Your task to perform on an android device: Clear the cart on ebay. Add bose soundlink to the cart on ebay, then select checkout. Image 0: 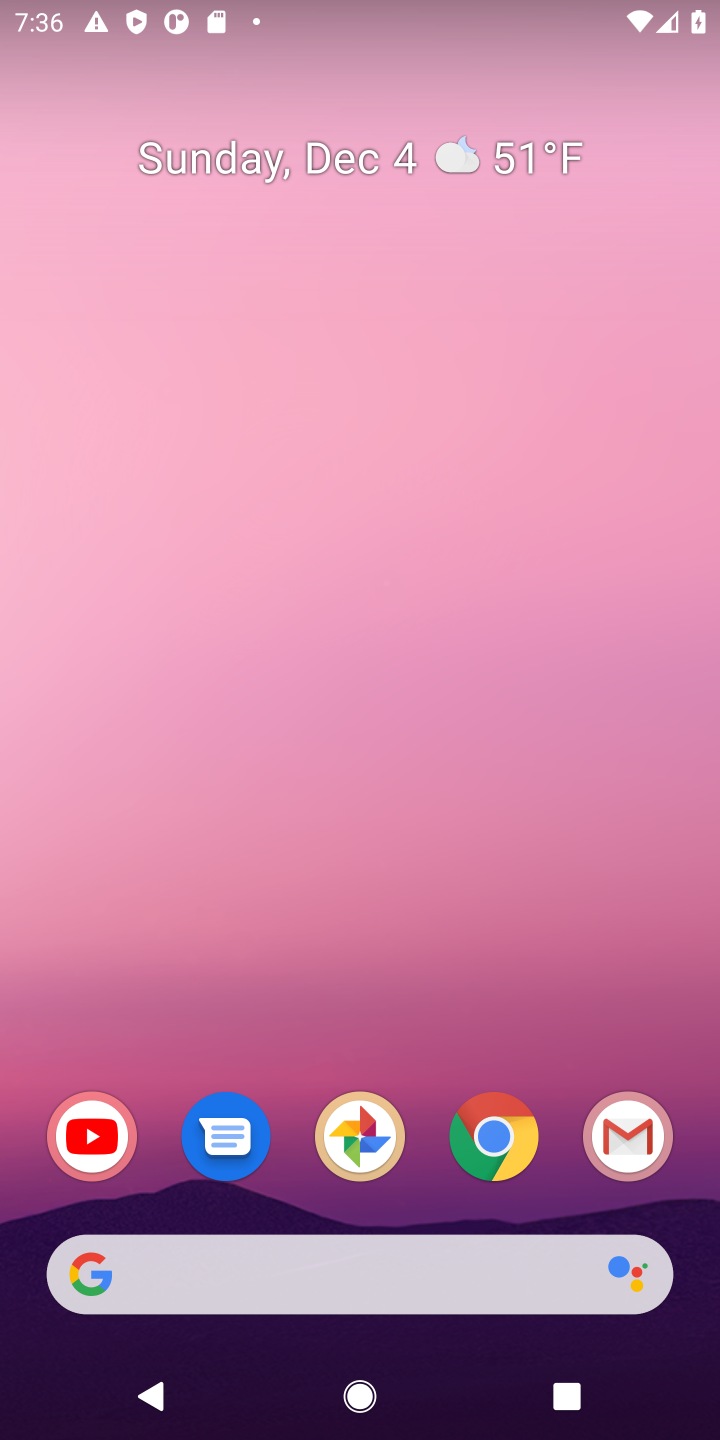
Step 0: click (512, 1143)
Your task to perform on an android device: Clear the cart on ebay. Add bose soundlink to the cart on ebay, then select checkout. Image 1: 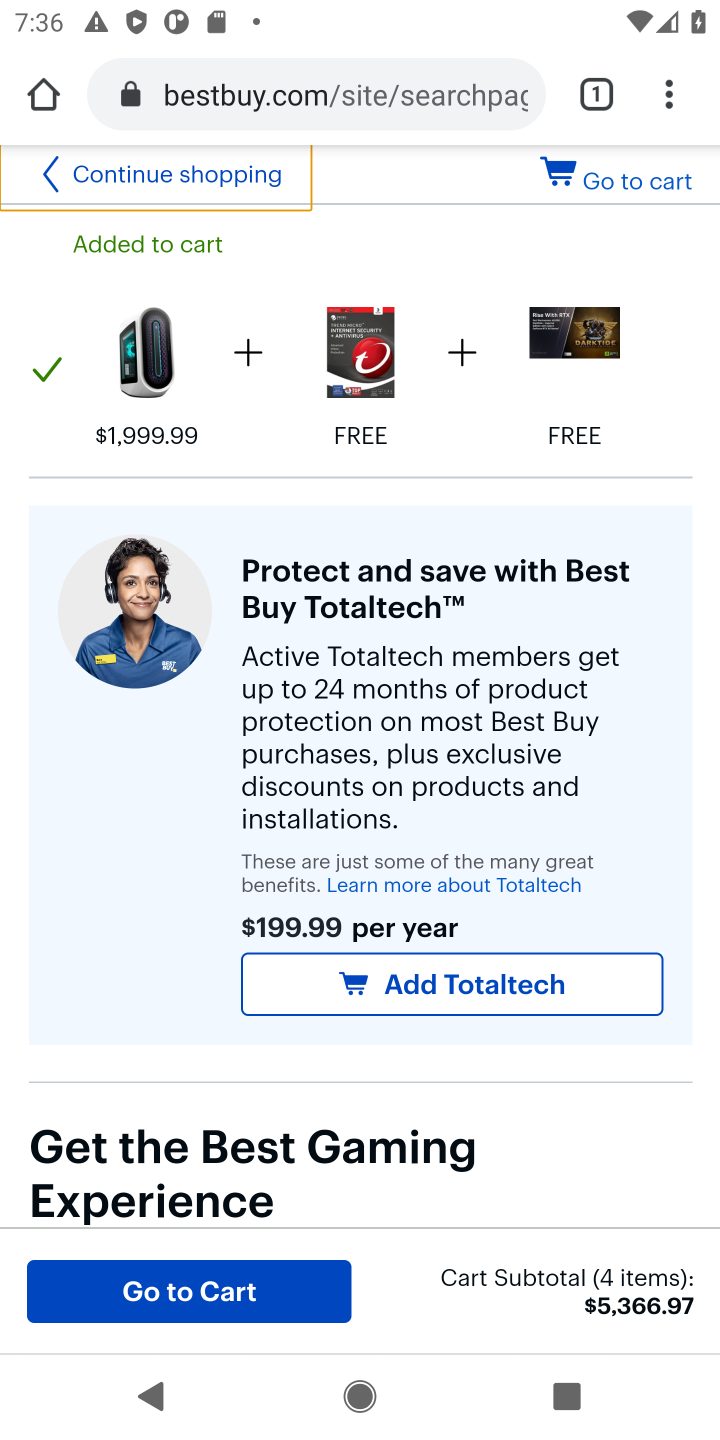
Step 1: click (271, 101)
Your task to perform on an android device: Clear the cart on ebay. Add bose soundlink to the cart on ebay, then select checkout. Image 2: 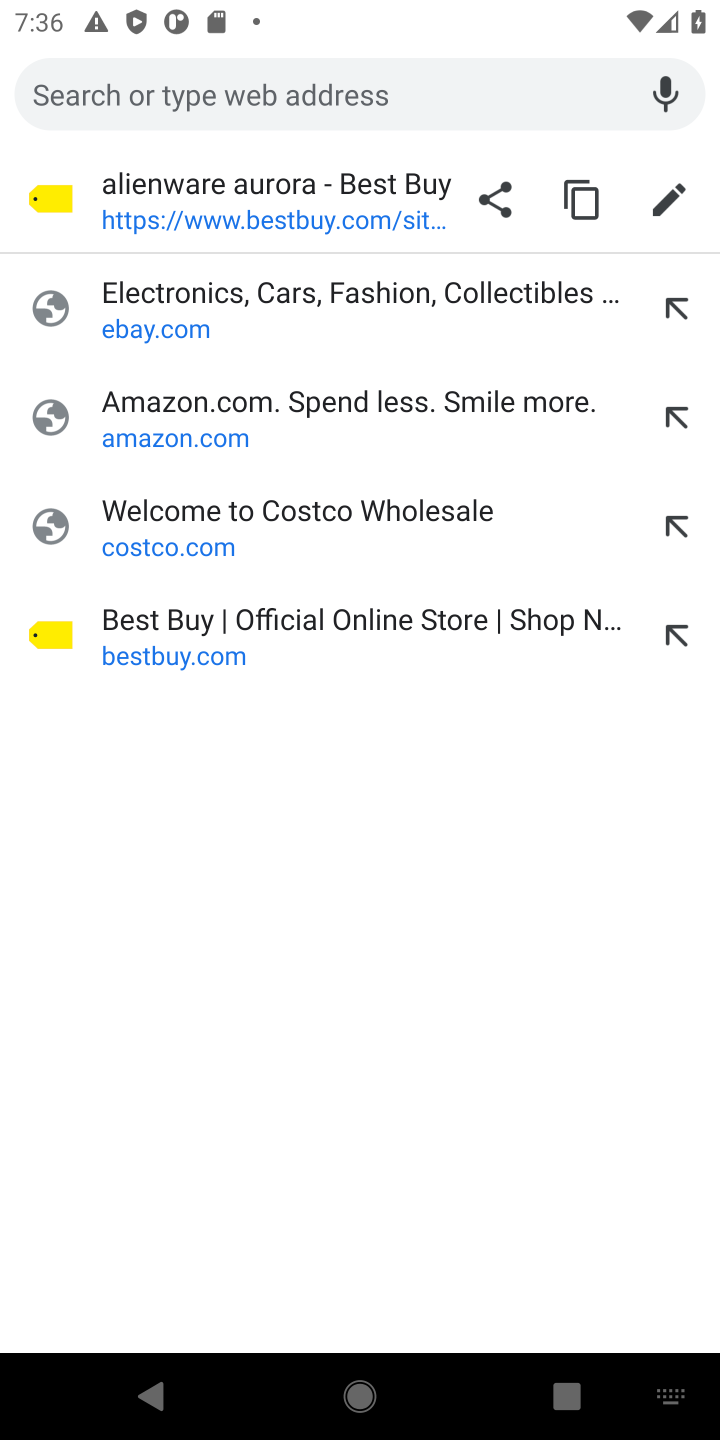
Step 2: click (124, 312)
Your task to perform on an android device: Clear the cart on ebay. Add bose soundlink to the cart on ebay, then select checkout. Image 3: 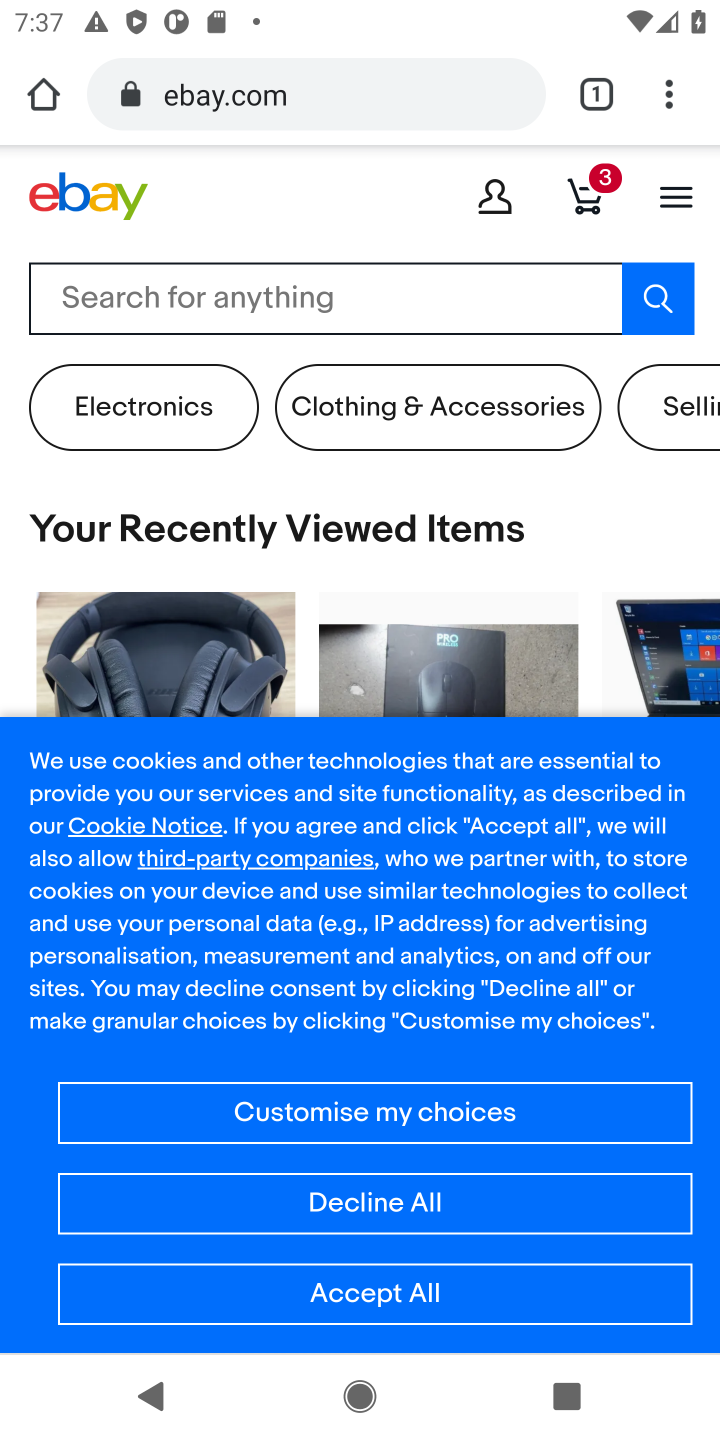
Step 3: click (585, 197)
Your task to perform on an android device: Clear the cart on ebay. Add bose soundlink to the cart on ebay, then select checkout. Image 4: 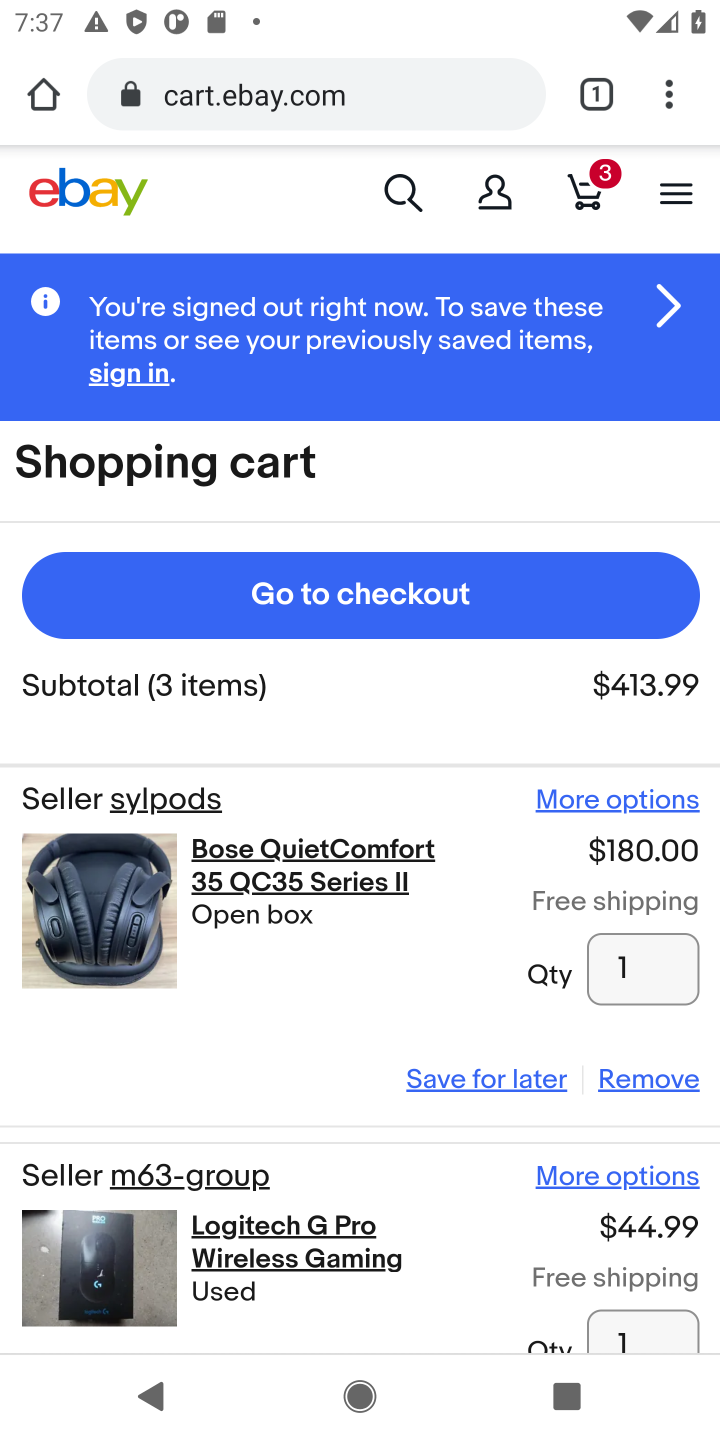
Step 4: click (625, 1085)
Your task to perform on an android device: Clear the cart on ebay. Add bose soundlink to the cart on ebay, then select checkout. Image 5: 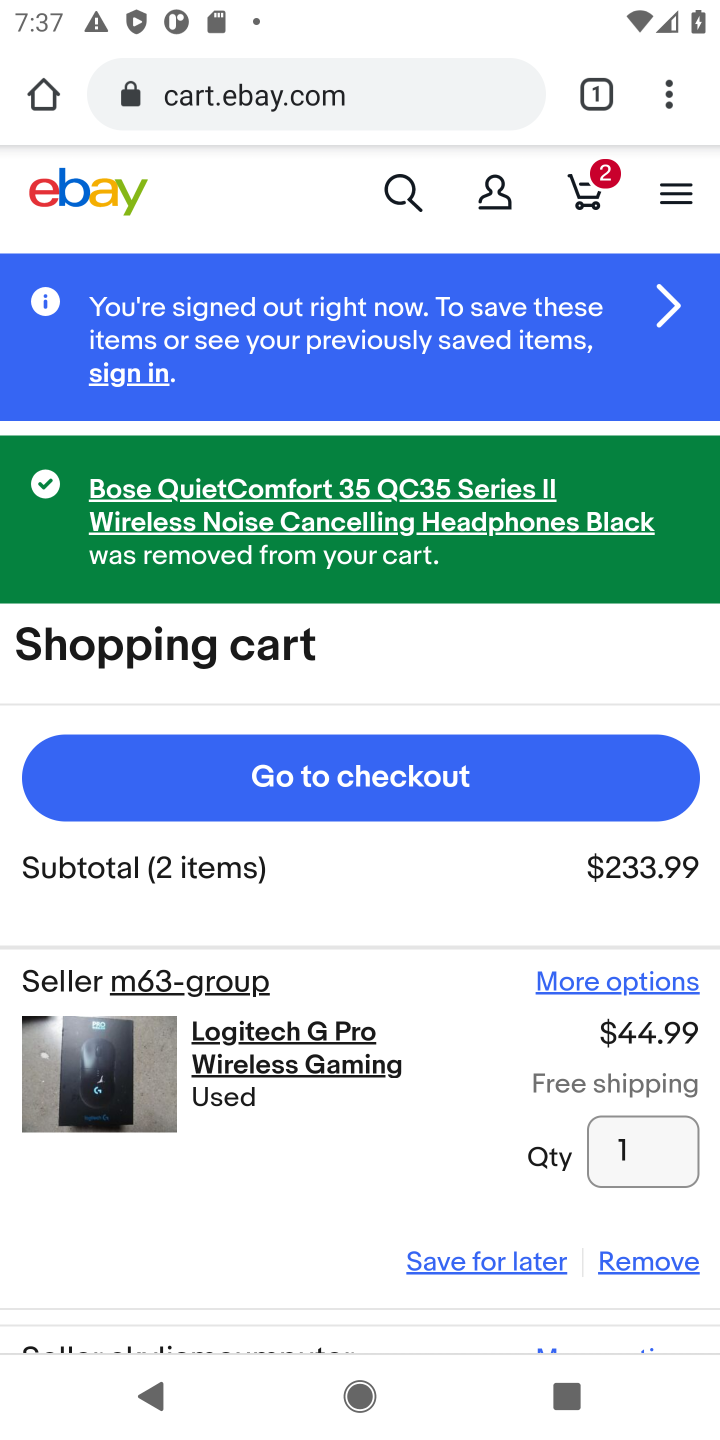
Step 5: click (624, 1253)
Your task to perform on an android device: Clear the cart on ebay. Add bose soundlink to the cart on ebay, then select checkout. Image 6: 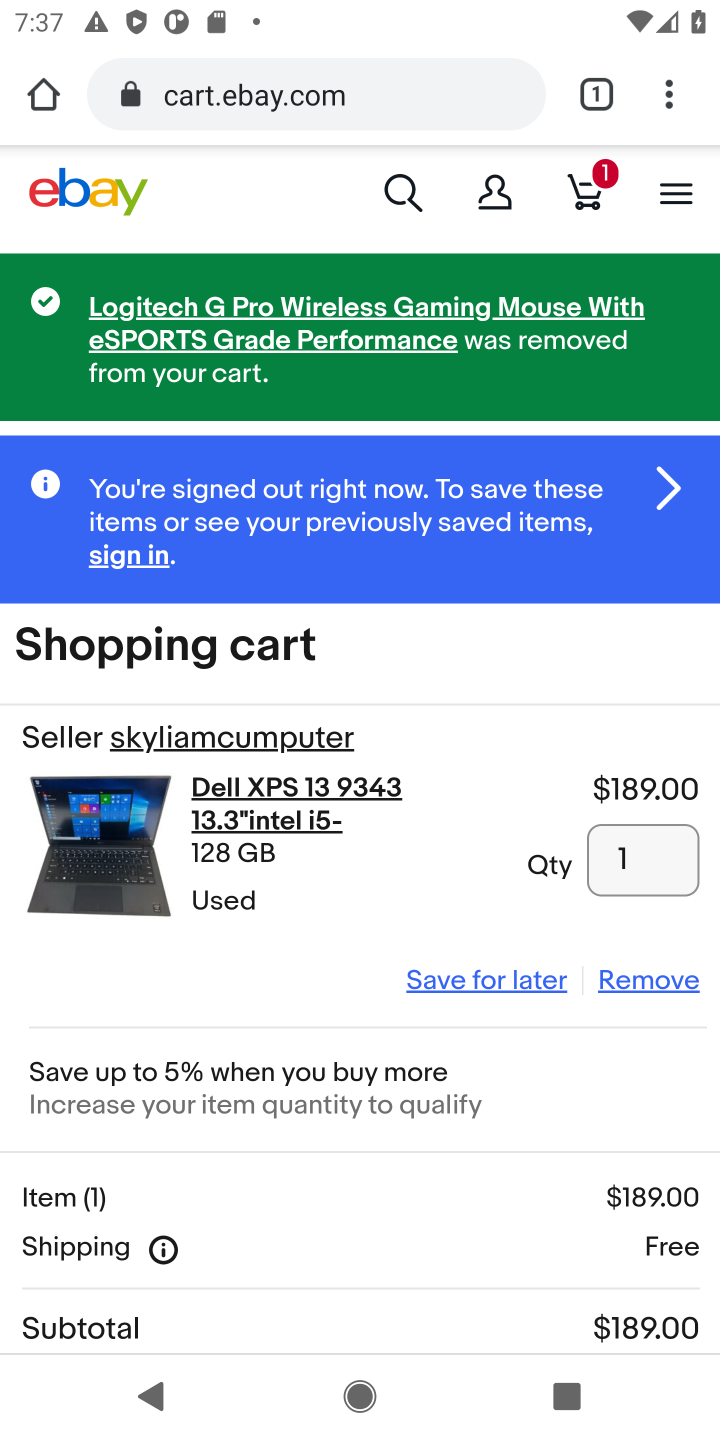
Step 6: click (658, 976)
Your task to perform on an android device: Clear the cart on ebay. Add bose soundlink to the cart on ebay, then select checkout. Image 7: 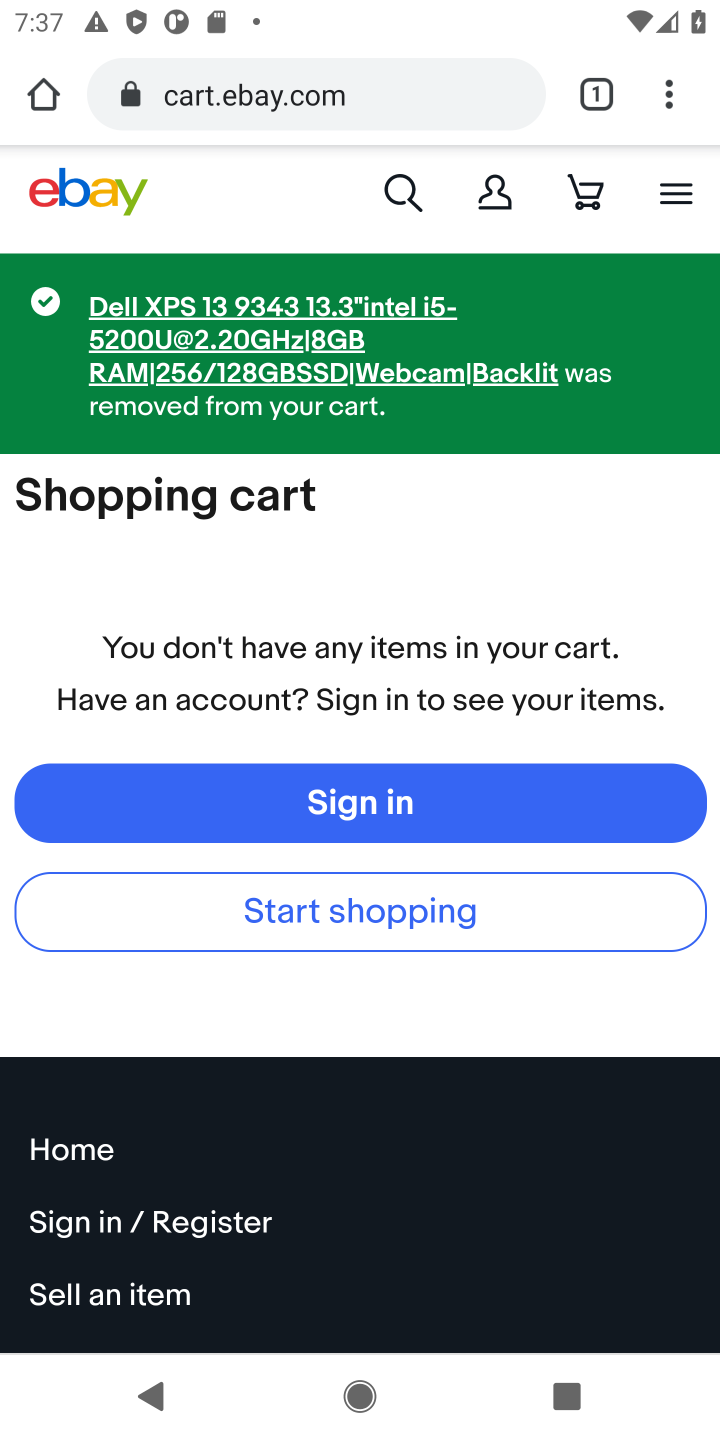
Step 7: click (401, 198)
Your task to perform on an android device: Clear the cart on ebay. Add bose soundlink to the cart on ebay, then select checkout. Image 8: 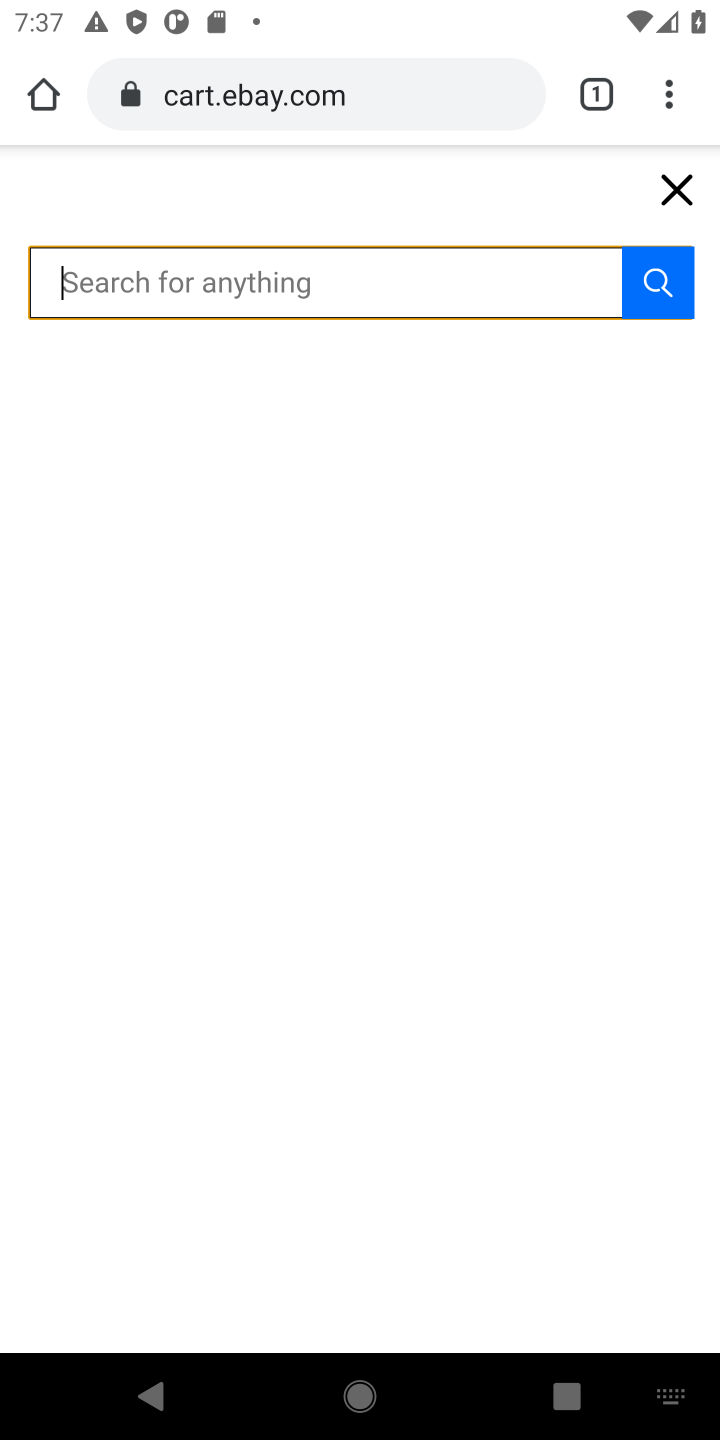
Step 8: type "bose soundlink"
Your task to perform on an android device: Clear the cart on ebay. Add bose soundlink to the cart on ebay, then select checkout. Image 9: 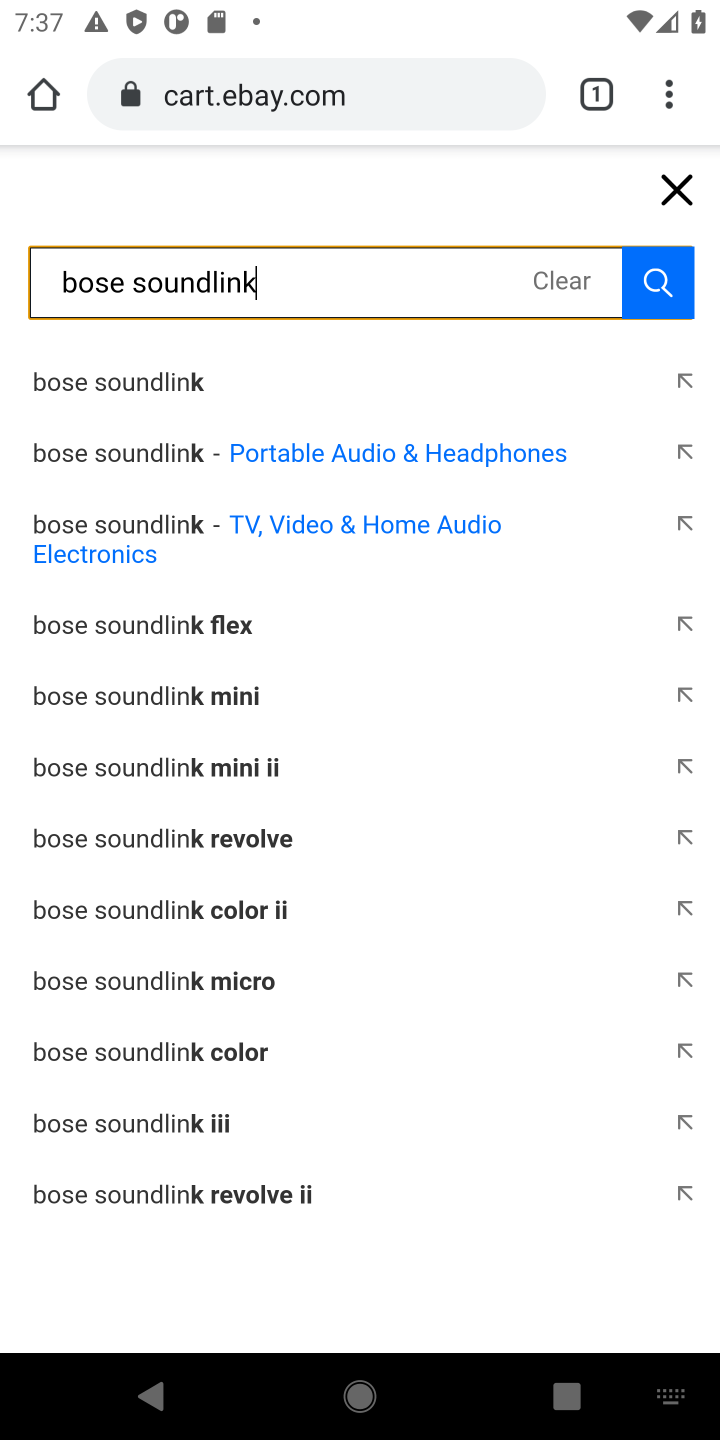
Step 9: click (174, 400)
Your task to perform on an android device: Clear the cart on ebay. Add bose soundlink to the cart on ebay, then select checkout. Image 10: 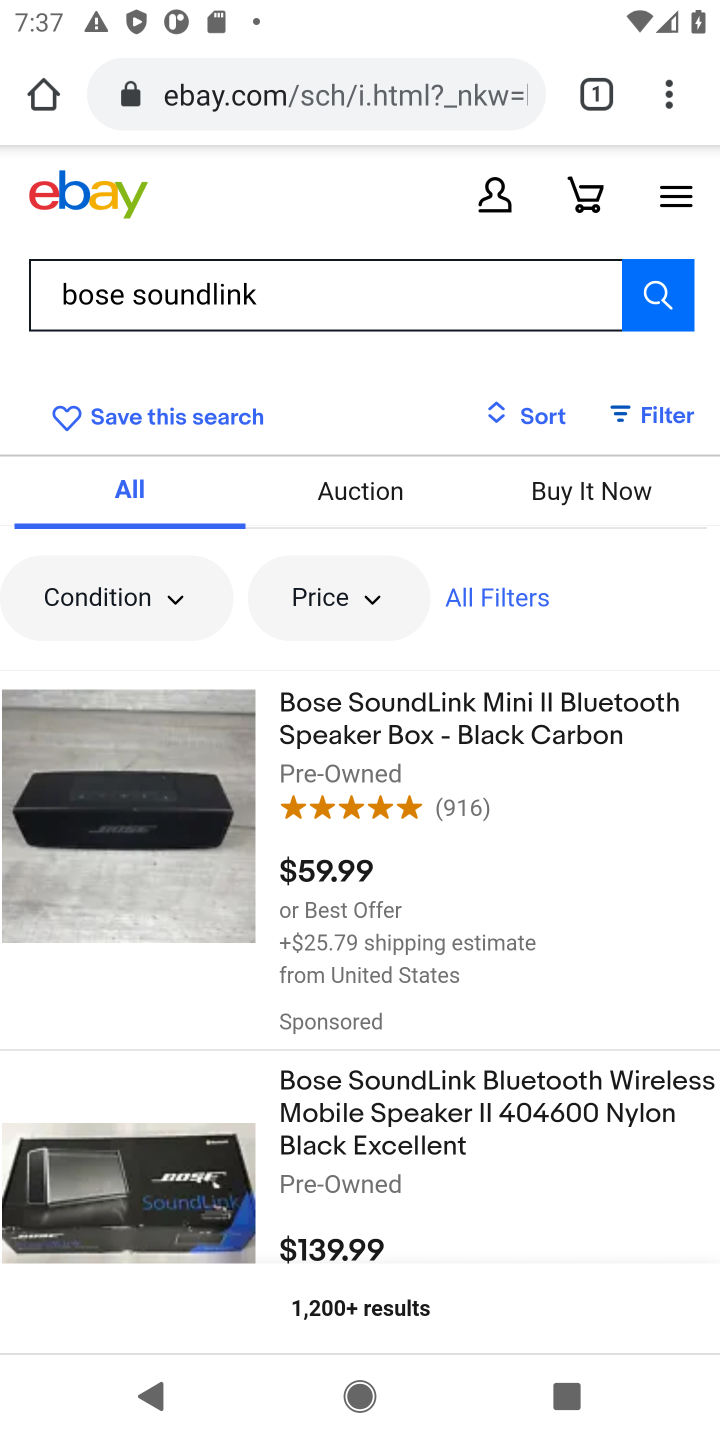
Step 10: click (342, 744)
Your task to perform on an android device: Clear the cart on ebay. Add bose soundlink to the cart on ebay, then select checkout. Image 11: 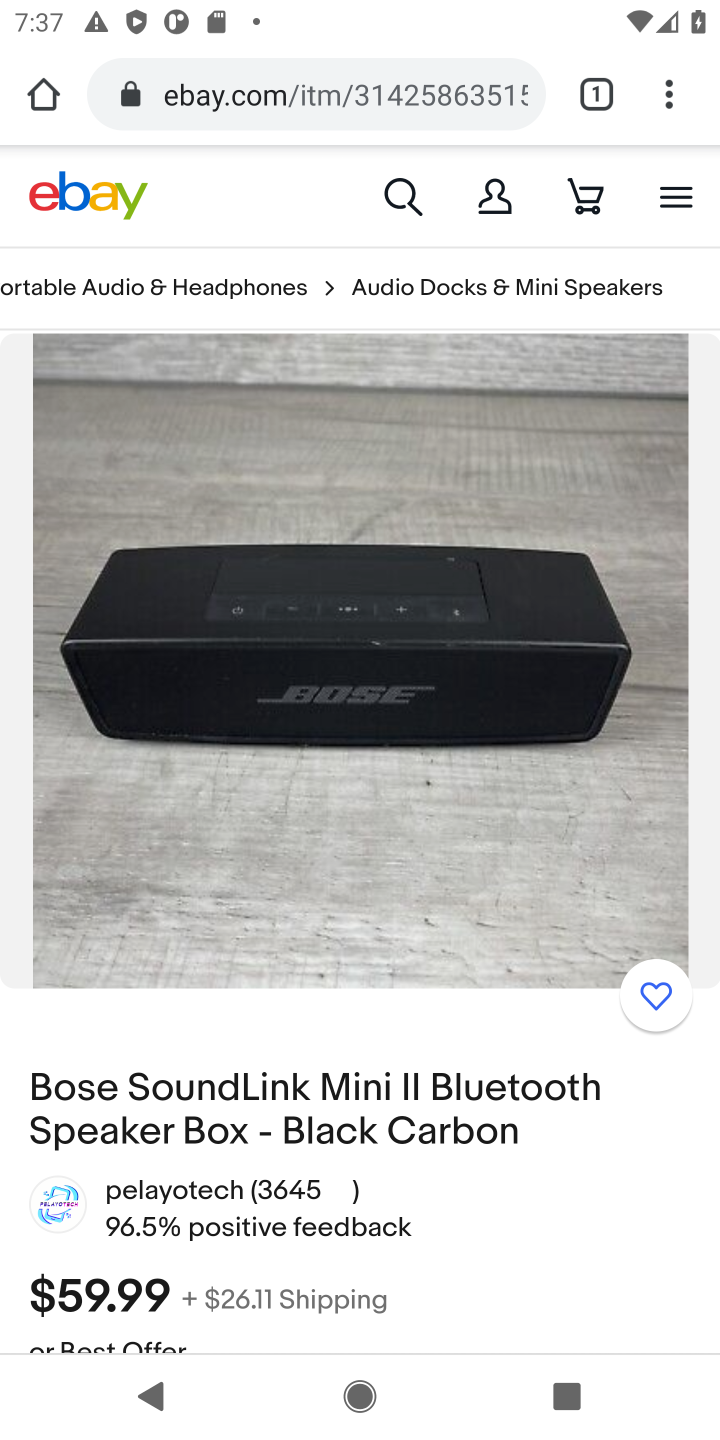
Step 11: drag from (343, 779) to (355, 433)
Your task to perform on an android device: Clear the cart on ebay. Add bose soundlink to the cart on ebay, then select checkout. Image 12: 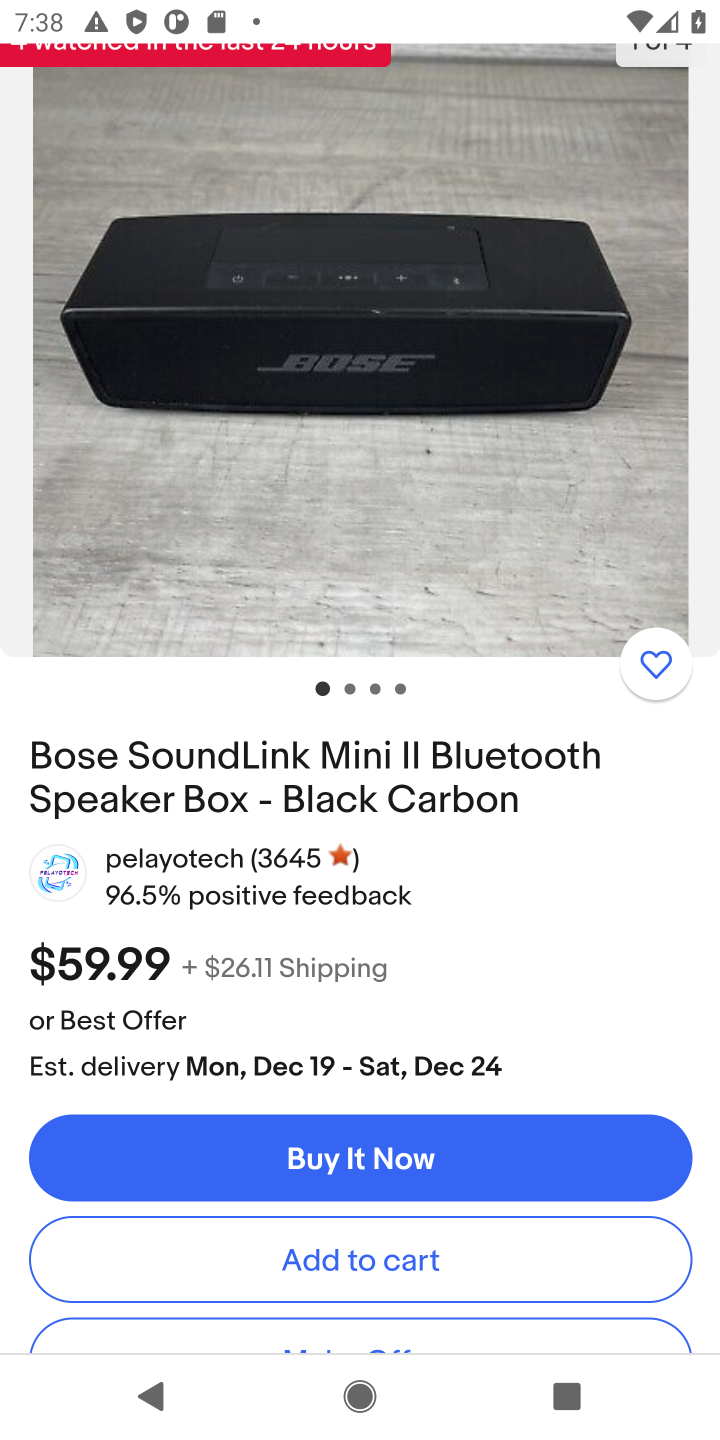
Step 12: click (319, 1255)
Your task to perform on an android device: Clear the cart on ebay. Add bose soundlink to the cart on ebay, then select checkout. Image 13: 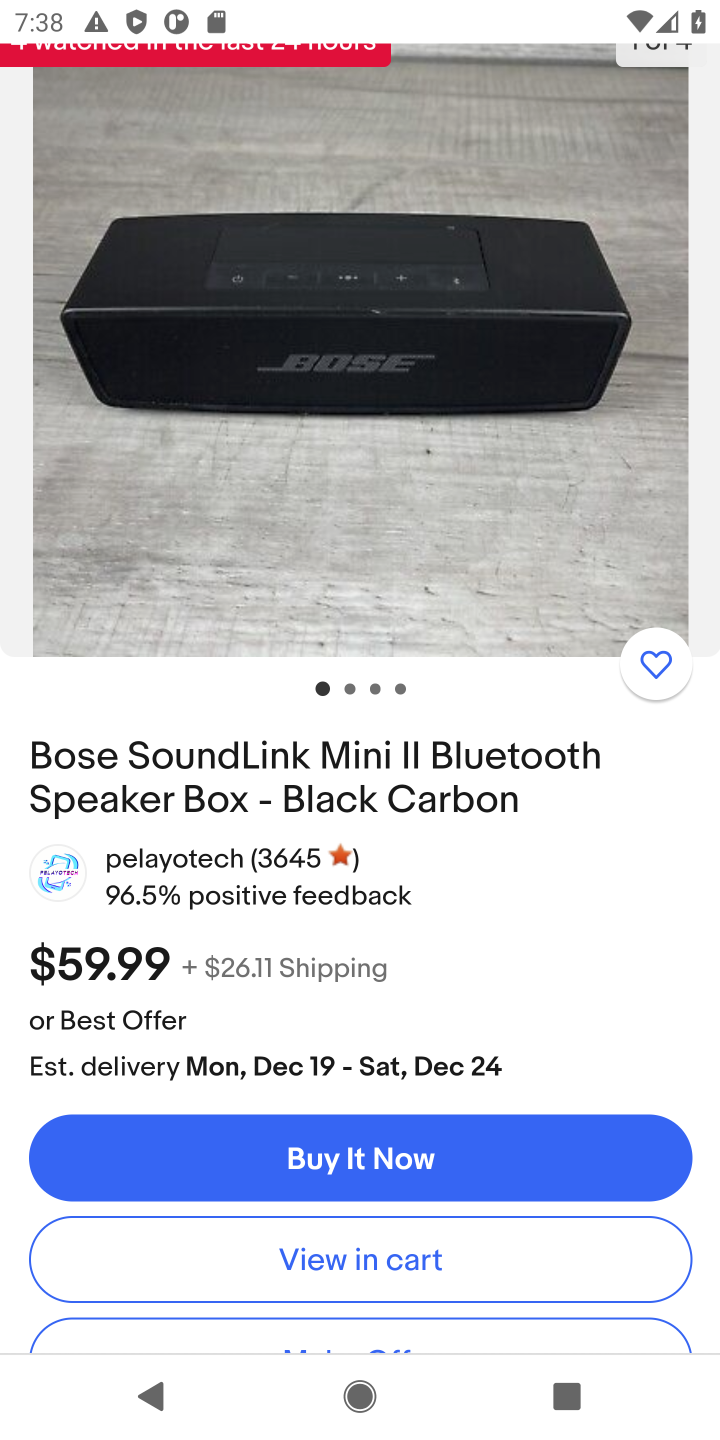
Step 13: click (319, 1255)
Your task to perform on an android device: Clear the cart on ebay. Add bose soundlink to the cart on ebay, then select checkout. Image 14: 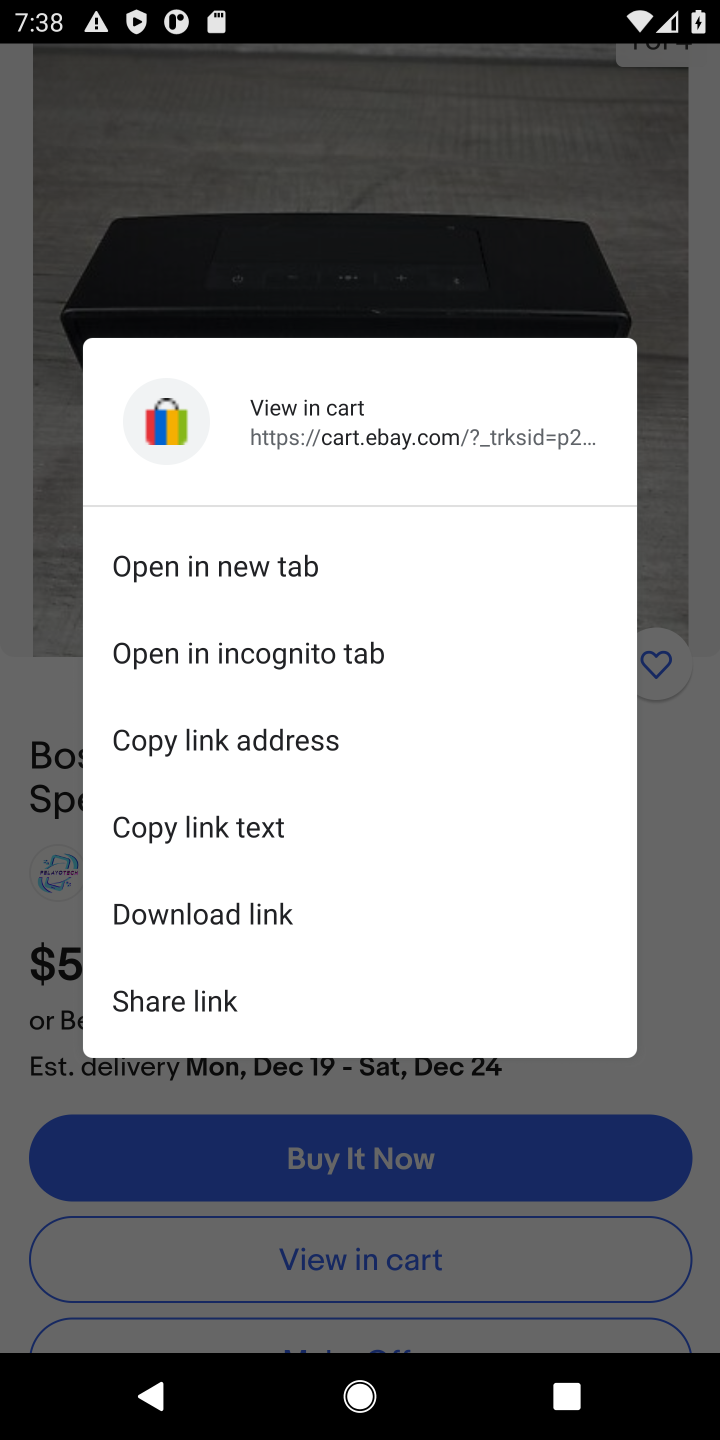
Step 14: click (317, 1256)
Your task to perform on an android device: Clear the cart on ebay. Add bose soundlink to the cart on ebay, then select checkout. Image 15: 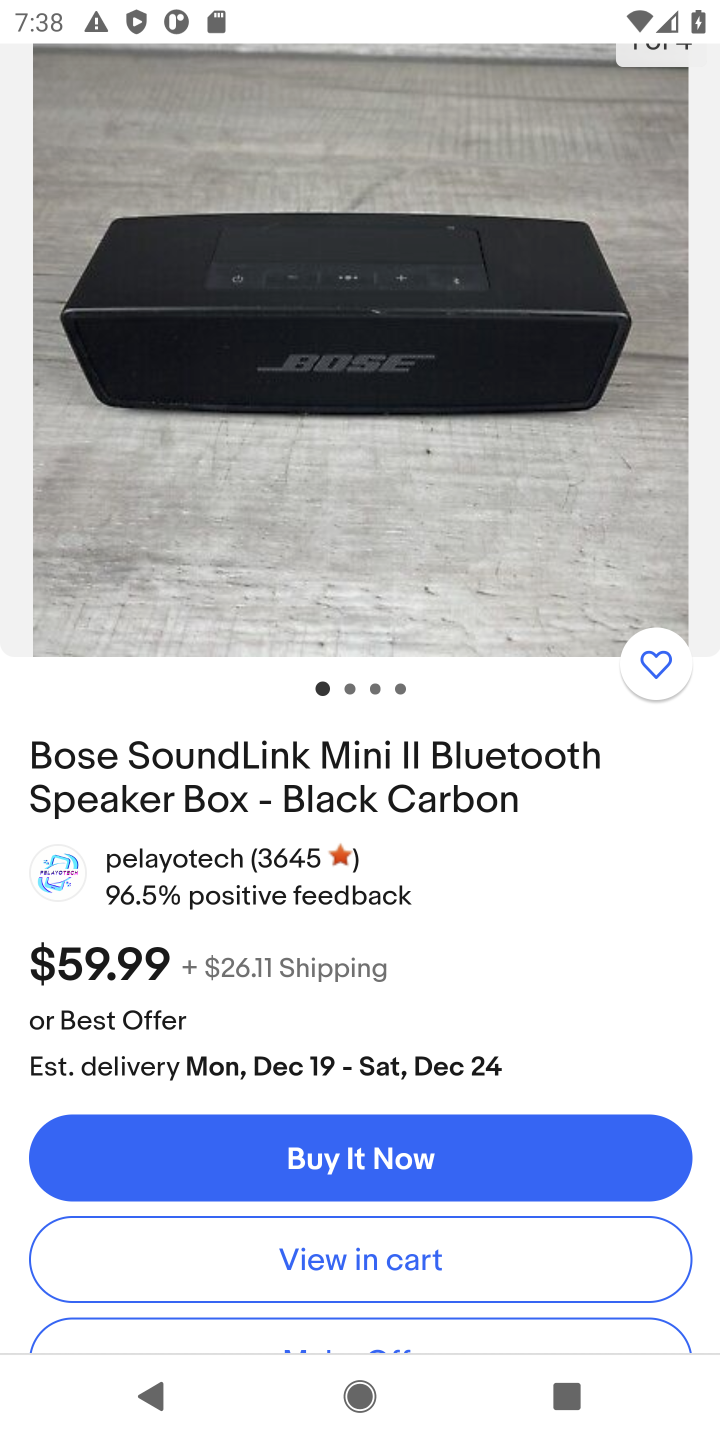
Step 15: click (328, 1268)
Your task to perform on an android device: Clear the cart on ebay. Add bose soundlink to the cart on ebay, then select checkout. Image 16: 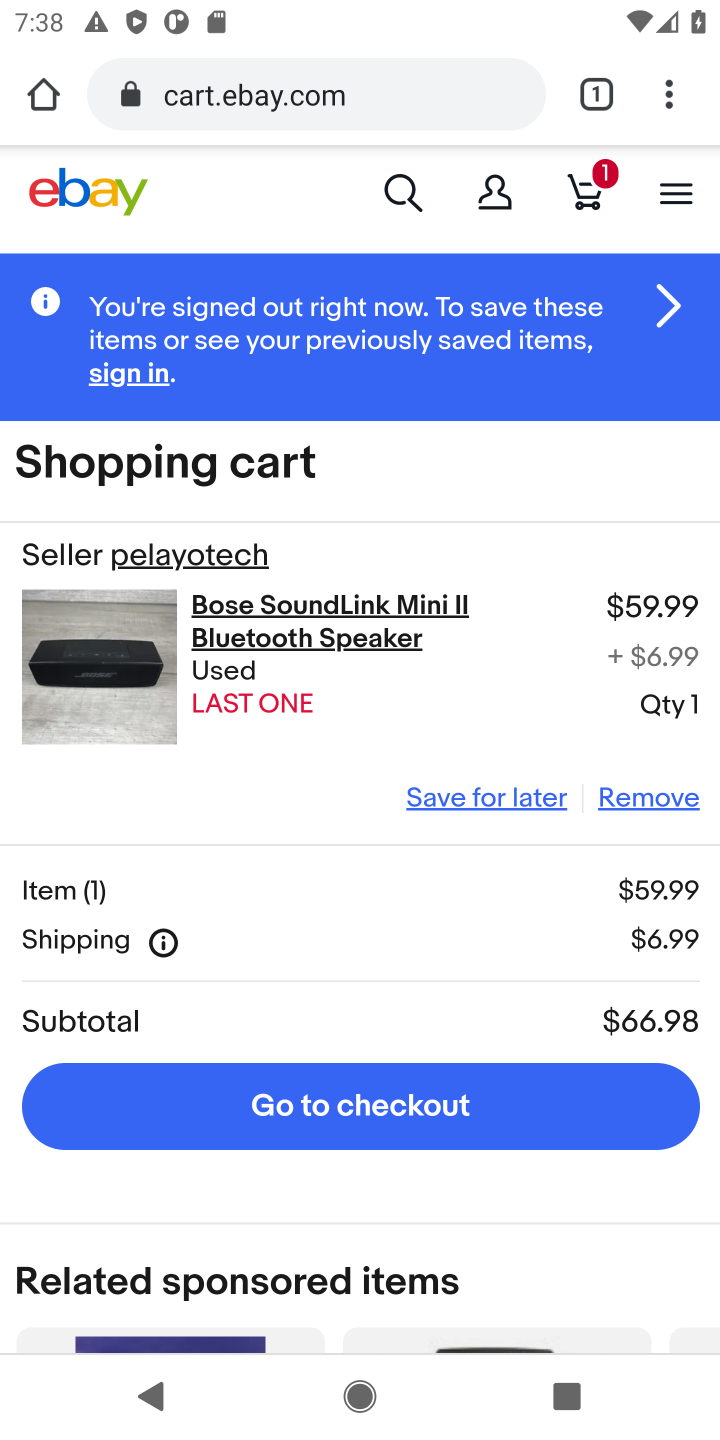
Step 16: click (361, 1094)
Your task to perform on an android device: Clear the cart on ebay. Add bose soundlink to the cart on ebay, then select checkout. Image 17: 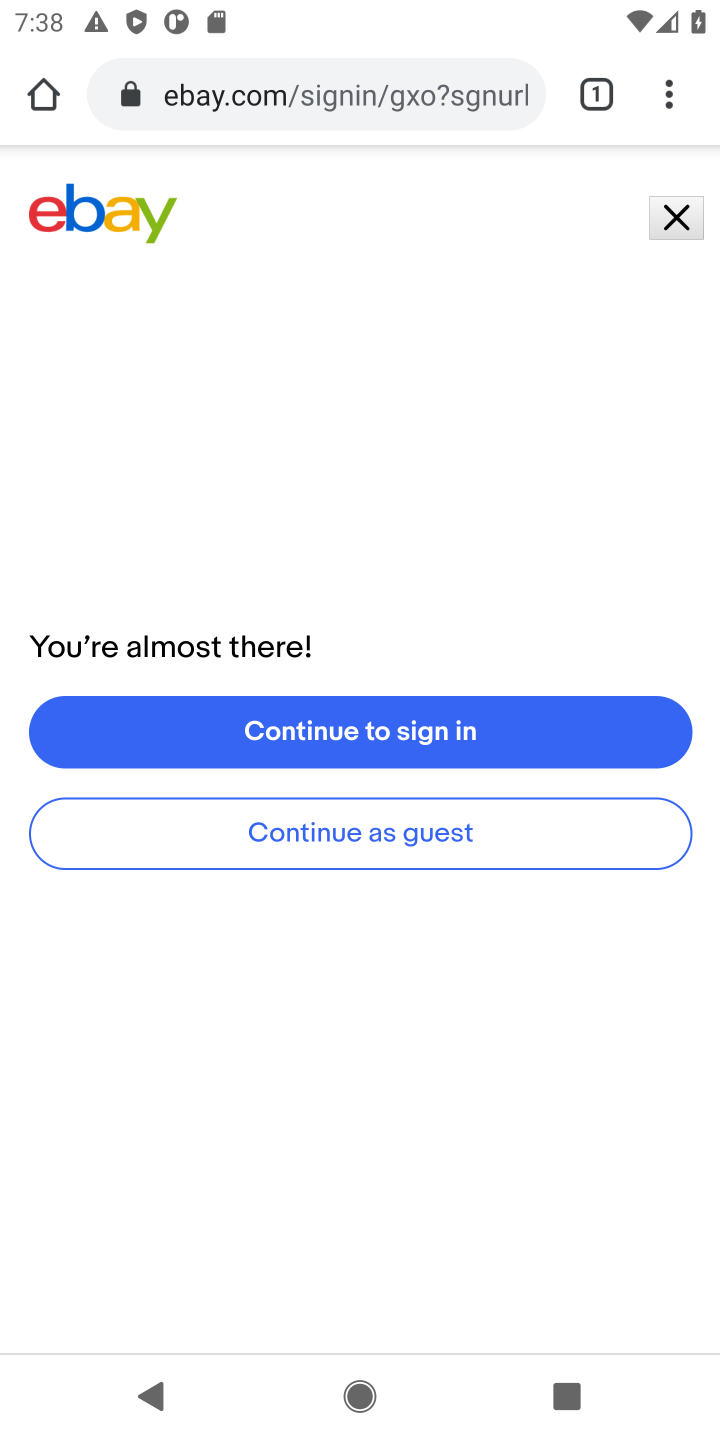
Step 17: task complete